Your task to perform on an android device: open a new tab in the chrome app Image 0: 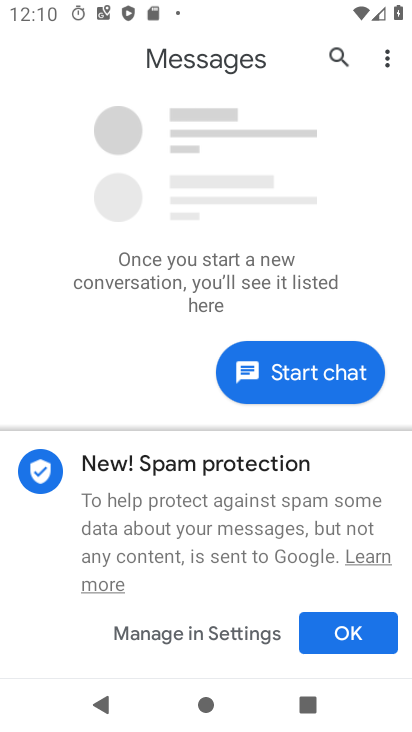
Step 0: press home button
Your task to perform on an android device: open a new tab in the chrome app Image 1: 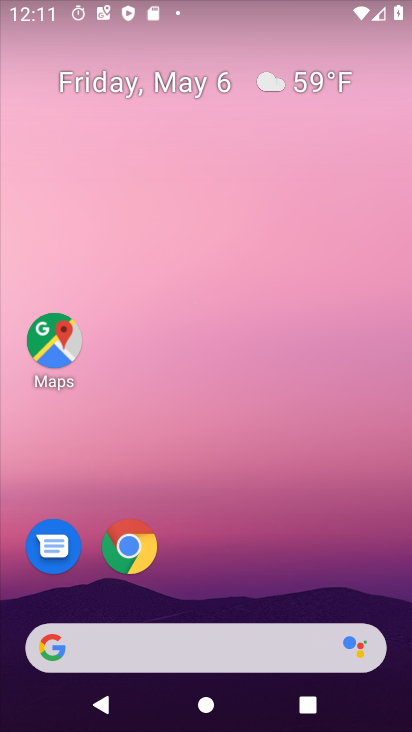
Step 1: click (130, 552)
Your task to perform on an android device: open a new tab in the chrome app Image 2: 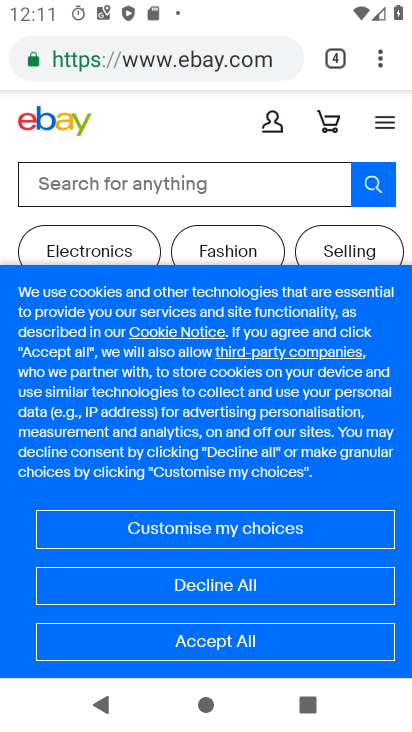
Step 2: click (336, 59)
Your task to perform on an android device: open a new tab in the chrome app Image 3: 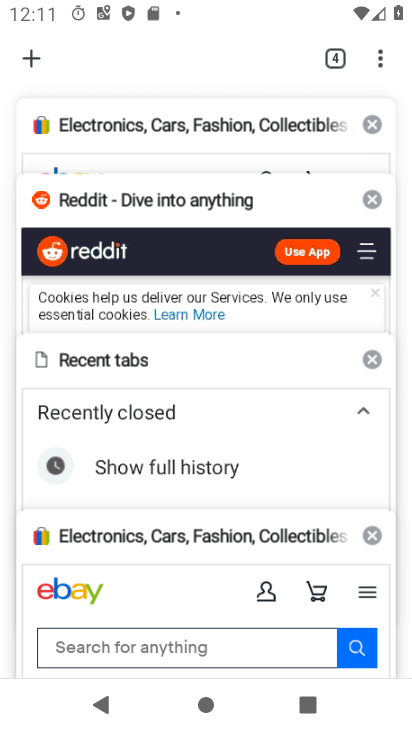
Step 3: click (28, 53)
Your task to perform on an android device: open a new tab in the chrome app Image 4: 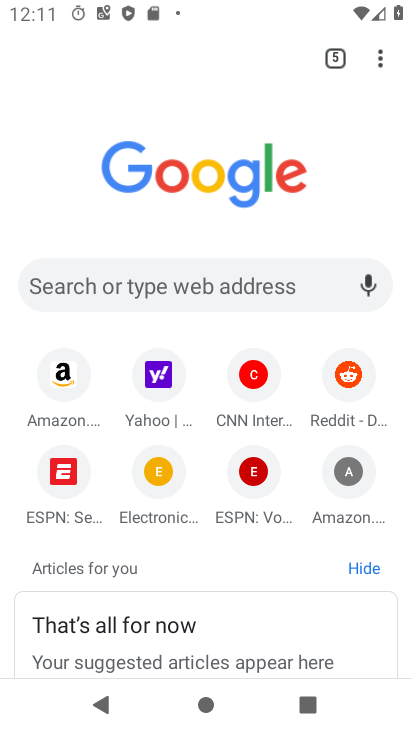
Step 4: task complete